Your task to perform on an android device: clear all cookies in the chrome app Image 0: 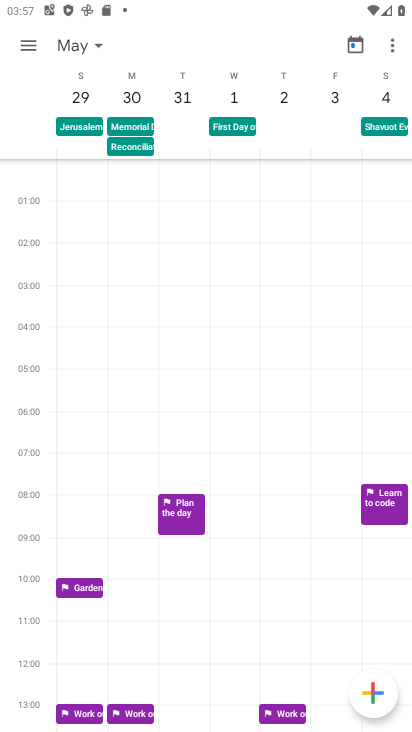
Step 0: press home button
Your task to perform on an android device: clear all cookies in the chrome app Image 1: 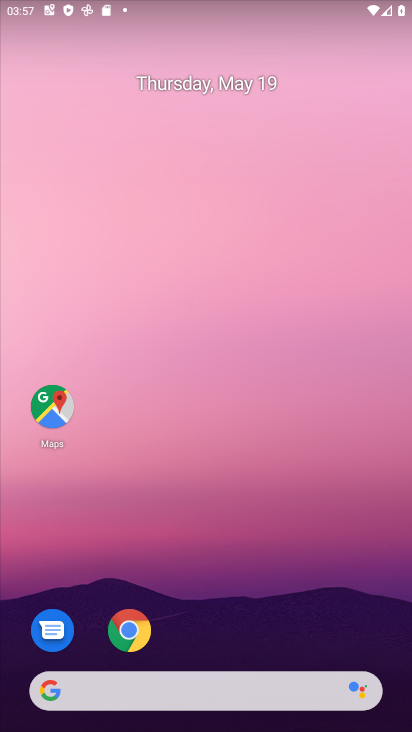
Step 1: click (127, 628)
Your task to perform on an android device: clear all cookies in the chrome app Image 2: 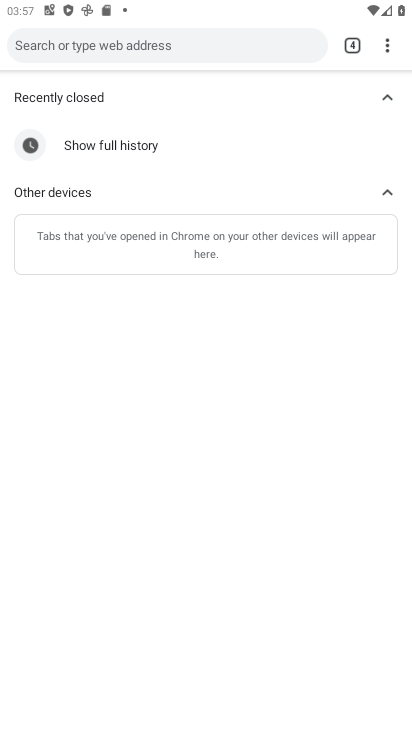
Step 2: click (384, 49)
Your task to perform on an android device: clear all cookies in the chrome app Image 3: 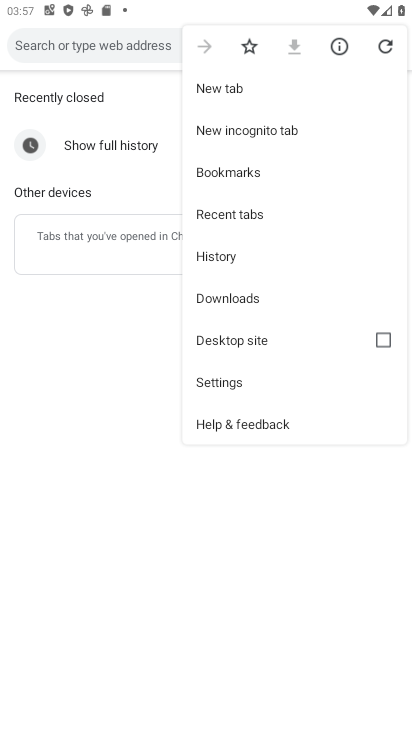
Step 3: click (212, 255)
Your task to perform on an android device: clear all cookies in the chrome app Image 4: 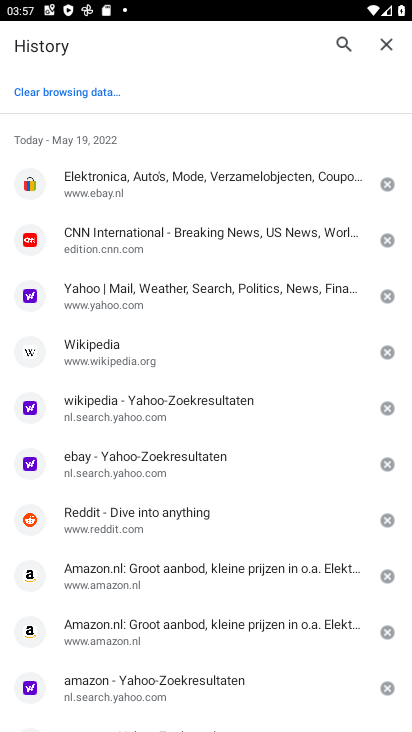
Step 4: click (62, 89)
Your task to perform on an android device: clear all cookies in the chrome app Image 5: 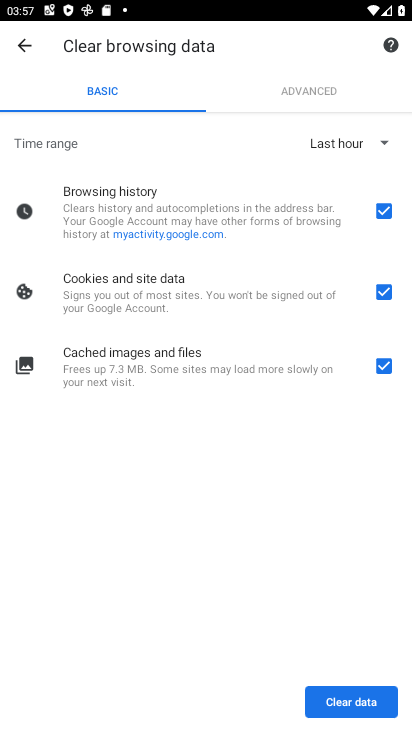
Step 5: click (381, 204)
Your task to perform on an android device: clear all cookies in the chrome app Image 6: 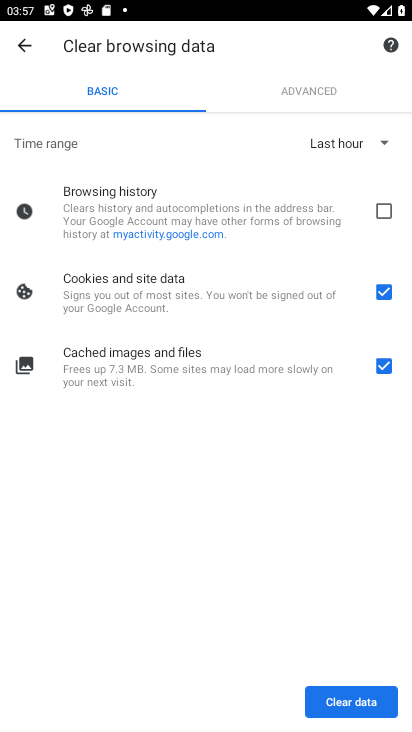
Step 6: click (380, 362)
Your task to perform on an android device: clear all cookies in the chrome app Image 7: 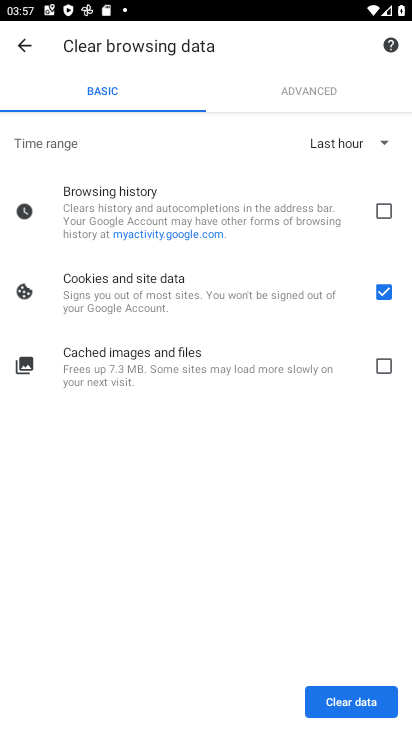
Step 7: click (349, 701)
Your task to perform on an android device: clear all cookies in the chrome app Image 8: 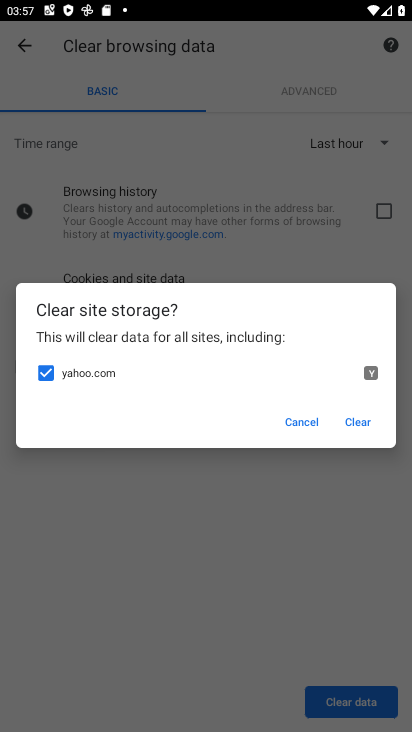
Step 8: click (356, 420)
Your task to perform on an android device: clear all cookies in the chrome app Image 9: 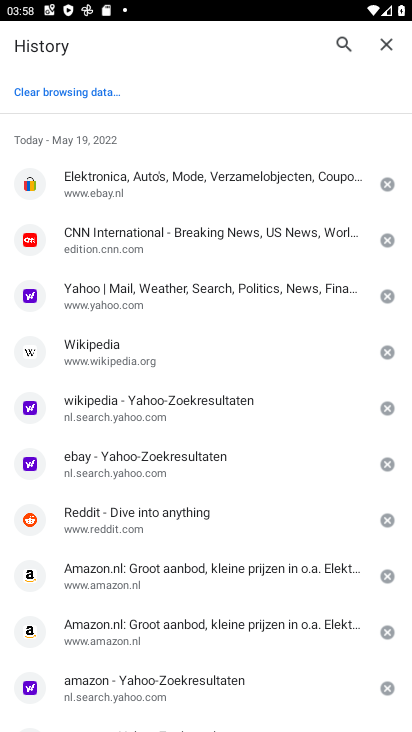
Step 9: task complete